Your task to perform on an android device: toggle wifi Image 0: 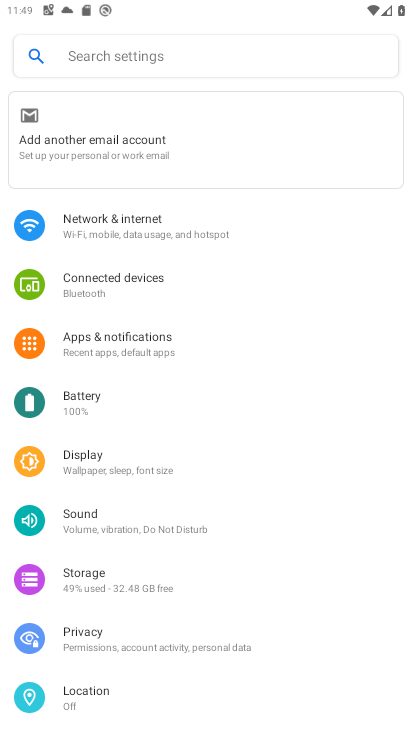
Step 0: click (169, 237)
Your task to perform on an android device: toggle wifi Image 1: 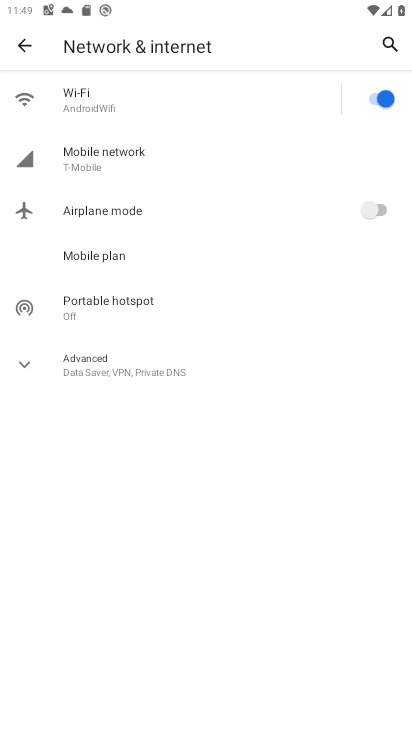
Step 1: click (211, 100)
Your task to perform on an android device: toggle wifi Image 2: 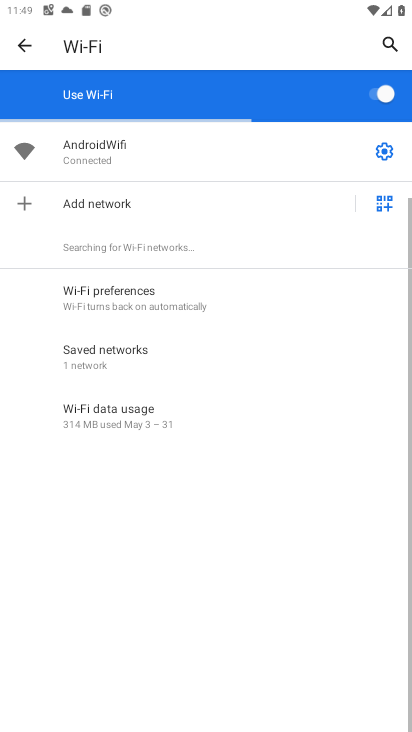
Step 2: click (387, 86)
Your task to perform on an android device: toggle wifi Image 3: 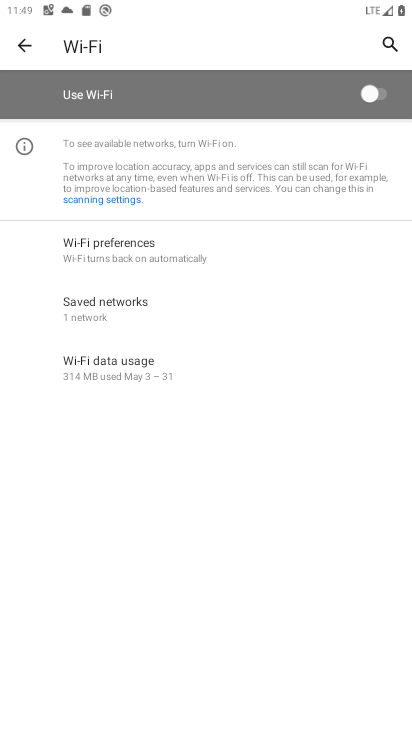
Step 3: task complete